Your task to perform on an android device: Go to battery settings Image 0: 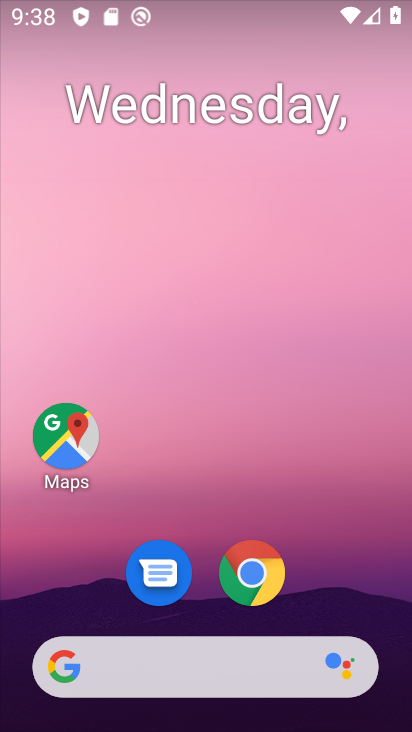
Step 0: drag from (302, 588) to (338, 131)
Your task to perform on an android device: Go to battery settings Image 1: 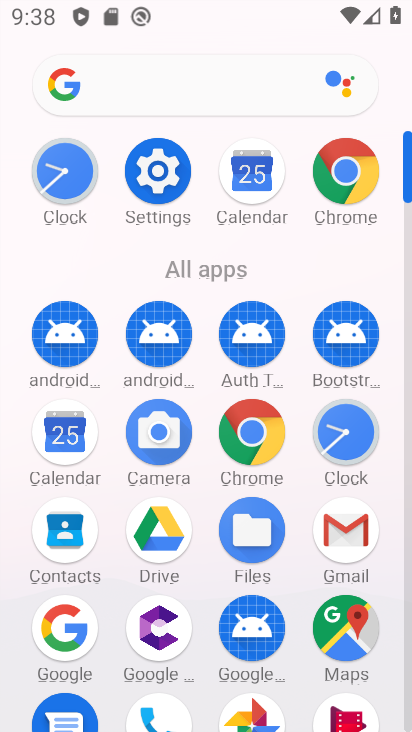
Step 1: click (164, 163)
Your task to perform on an android device: Go to battery settings Image 2: 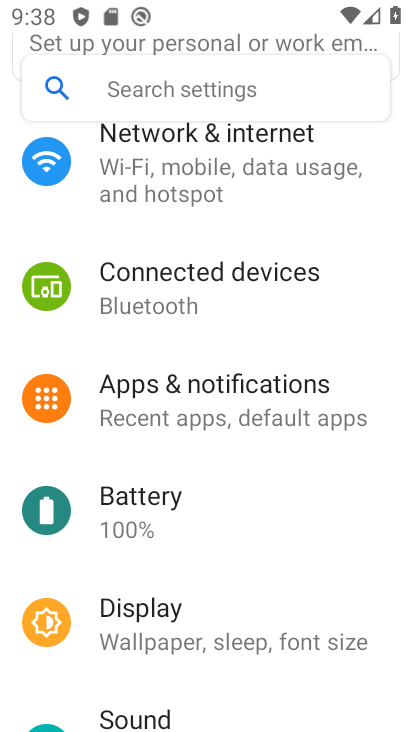
Step 2: click (171, 489)
Your task to perform on an android device: Go to battery settings Image 3: 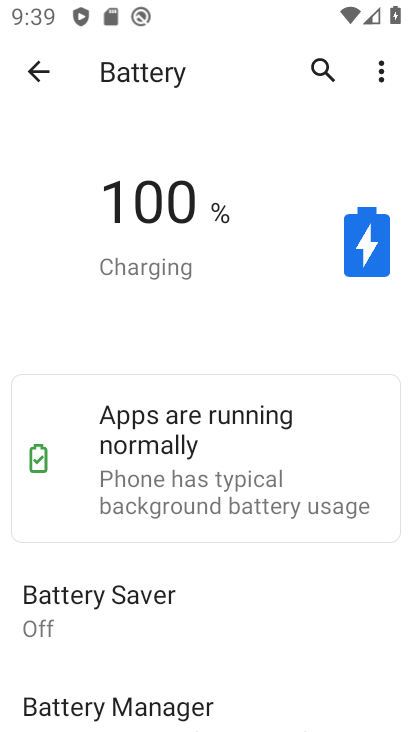
Step 3: task complete